Your task to perform on an android device: add a label to a message in the gmail app Image 0: 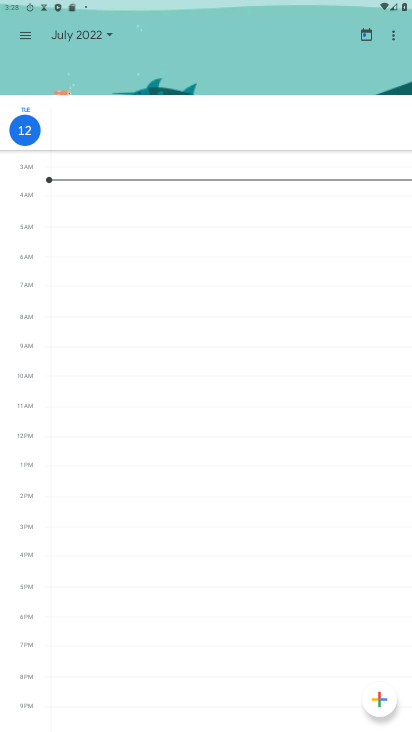
Step 0: press home button
Your task to perform on an android device: add a label to a message in the gmail app Image 1: 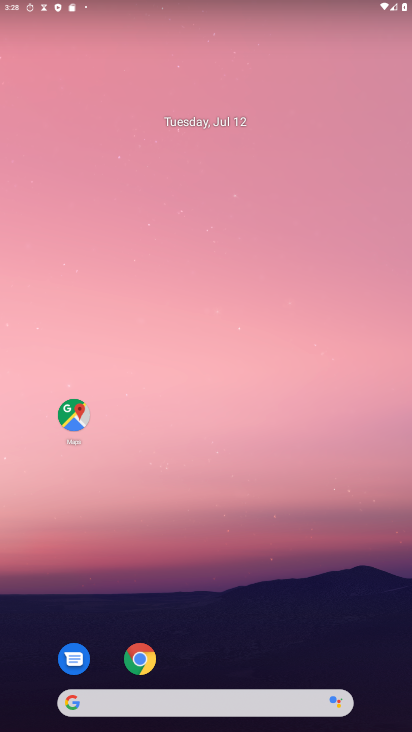
Step 1: drag from (255, 648) to (215, 228)
Your task to perform on an android device: add a label to a message in the gmail app Image 2: 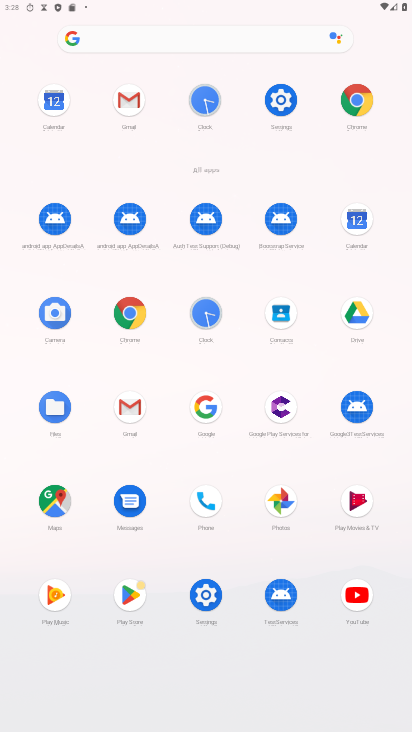
Step 2: click (135, 105)
Your task to perform on an android device: add a label to a message in the gmail app Image 3: 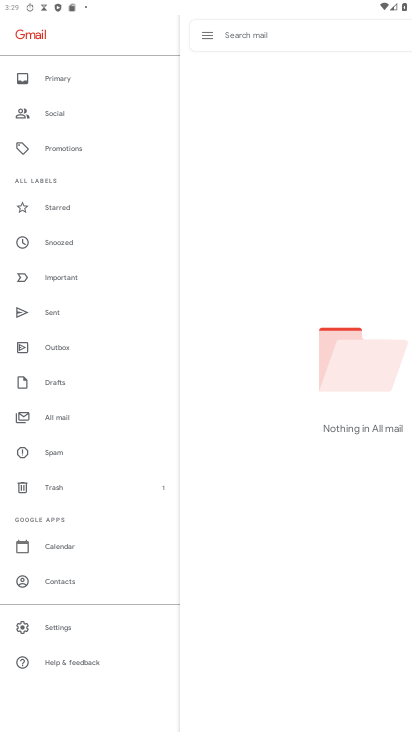
Step 3: task complete